Your task to perform on an android device: Show me productivity apps on the Play Store Image 0: 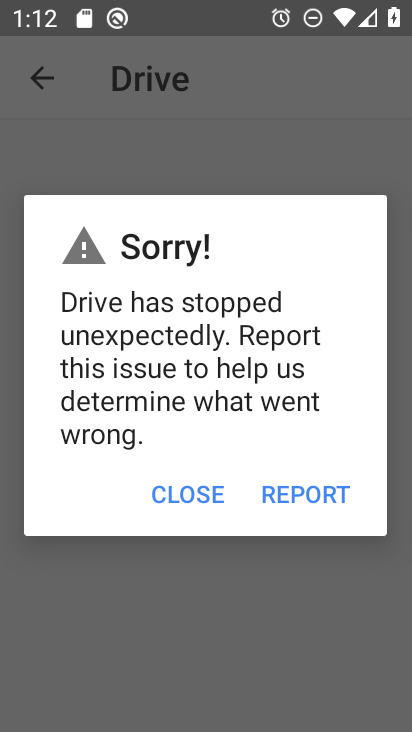
Step 0: press home button
Your task to perform on an android device: Show me productivity apps on the Play Store Image 1: 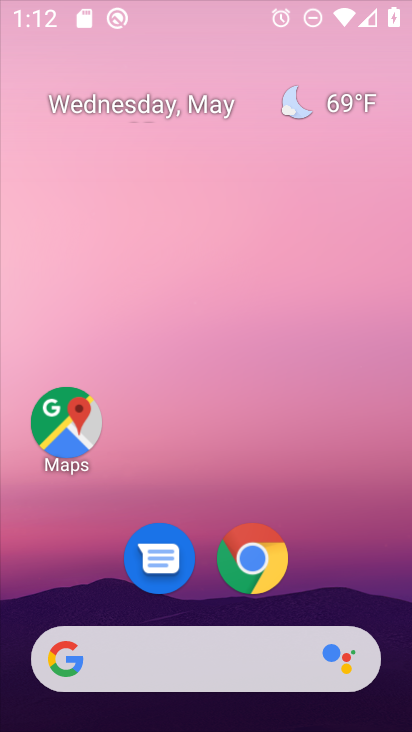
Step 1: drag from (397, 682) to (303, 24)
Your task to perform on an android device: Show me productivity apps on the Play Store Image 2: 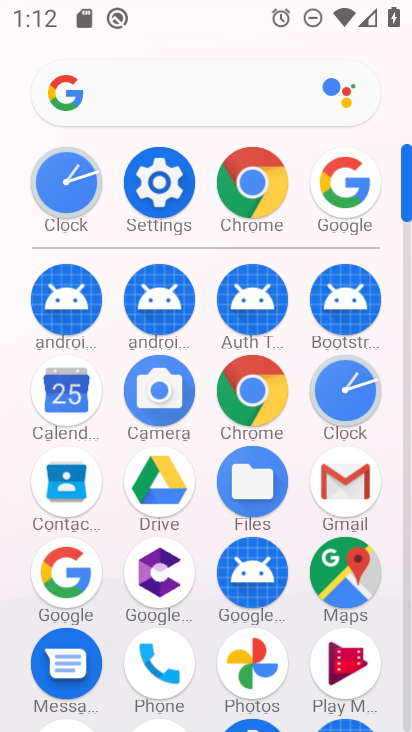
Step 2: drag from (213, 690) to (268, 150)
Your task to perform on an android device: Show me productivity apps on the Play Store Image 3: 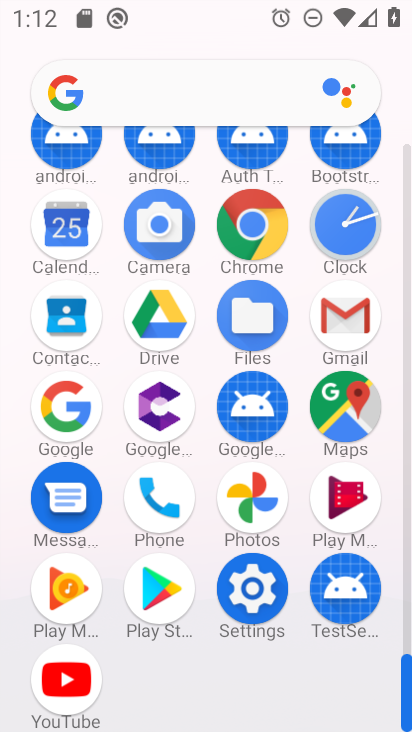
Step 3: click (169, 599)
Your task to perform on an android device: Show me productivity apps on the Play Store Image 4: 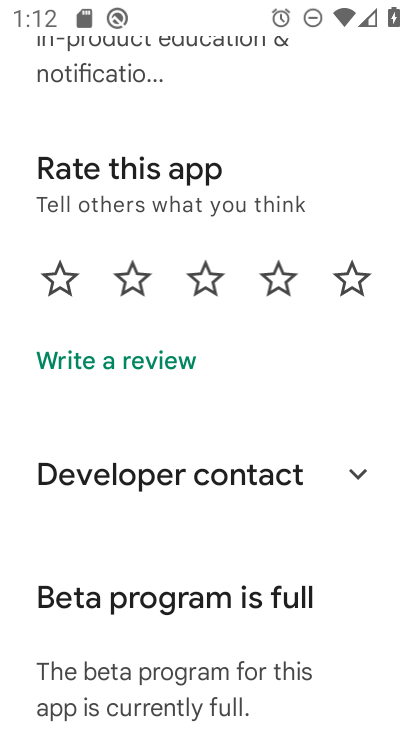
Step 4: task complete